Your task to perform on an android device: Go to Amazon Image 0: 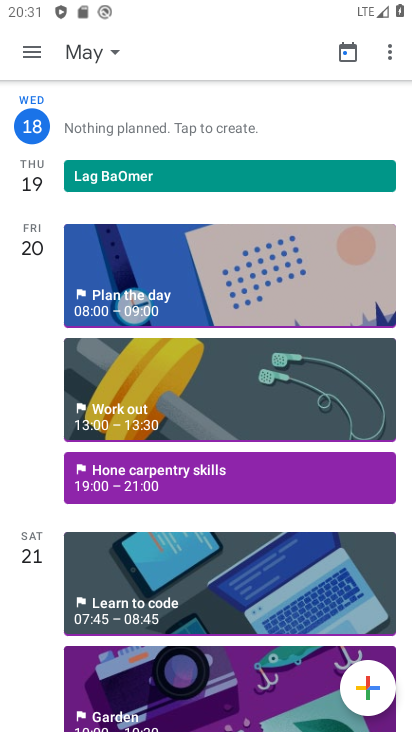
Step 0: press home button
Your task to perform on an android device: Go to Amazon Image 1: 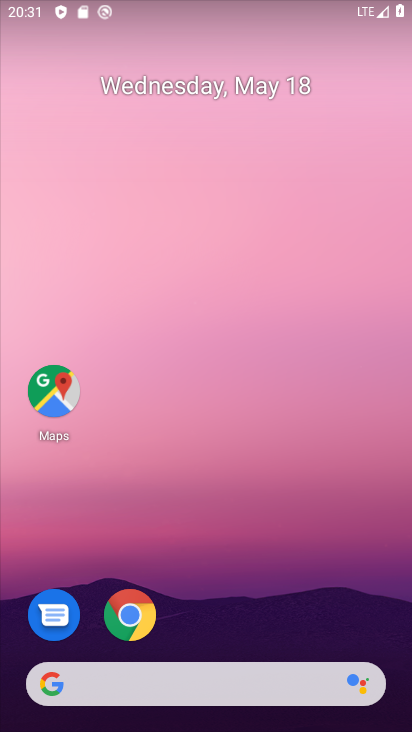
Step 1: click (142, 603)
Your task to perform on an android device: Go to Amazon Image 2: 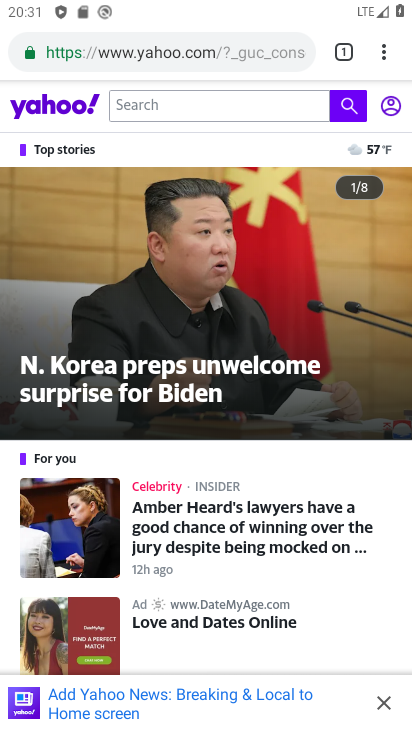
Step 2: click (132, 54)
Your task to perform on an android device: Go to Amazon Image 3: 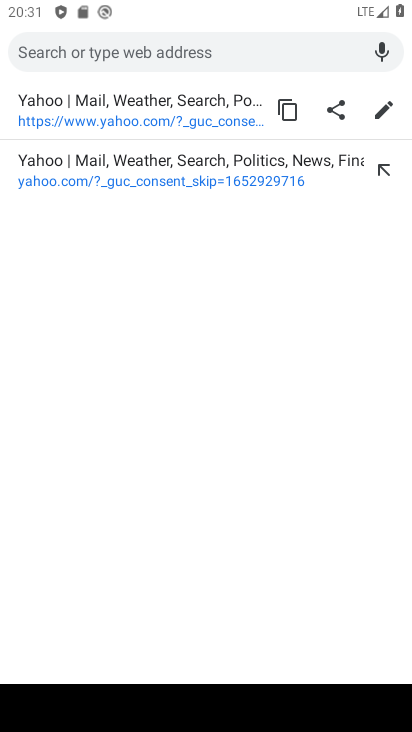
Step 3: type "amazon"
Your task to perform on an android device: Go to Amazon Image 4: 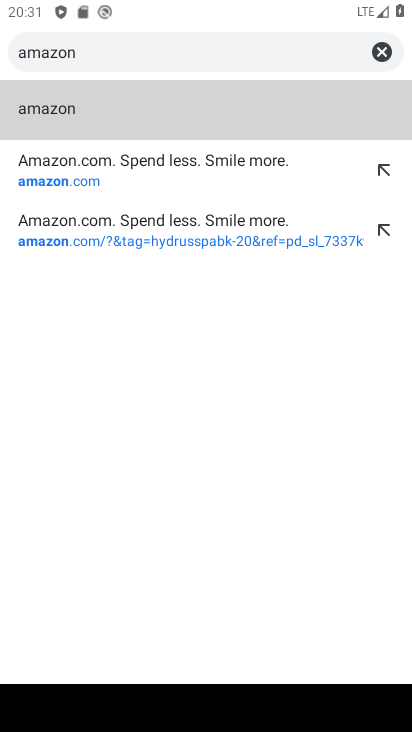
Step 4: click (91, 158)
Your task to perform on an android device: Go to Amazon Image 5: 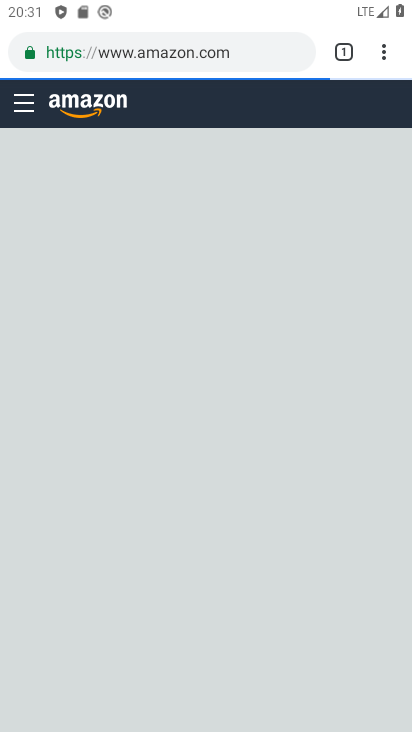
Step 5: task complete